Your task to perform on an android device: set an alarm Image 0: 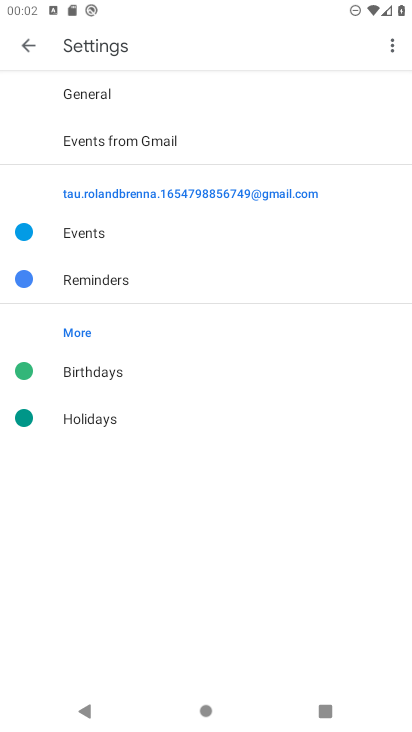
Step 0: press home button
Your task to perform on an android device: set an alarm Image 1: 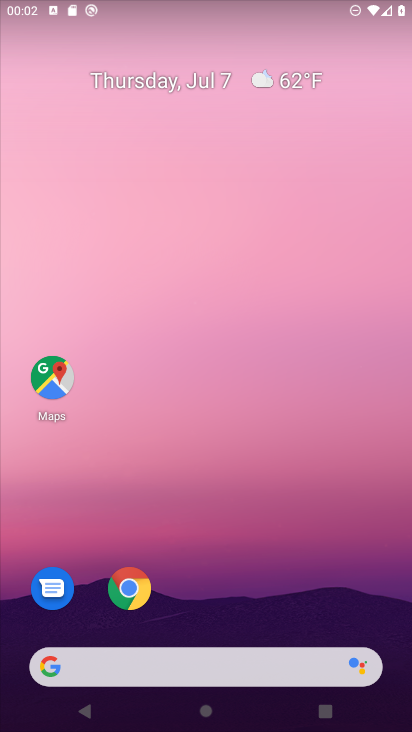
Step 1: drag from (364, 611) to (355, 158)
Your task to perform on an android device: set an alarm Image 2: 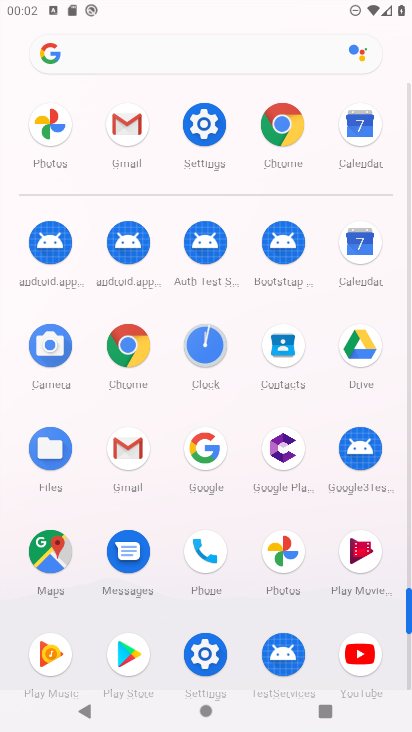
Step 2: click (206, 348)
Your task to perform on an android device: set an alarm Image 3: 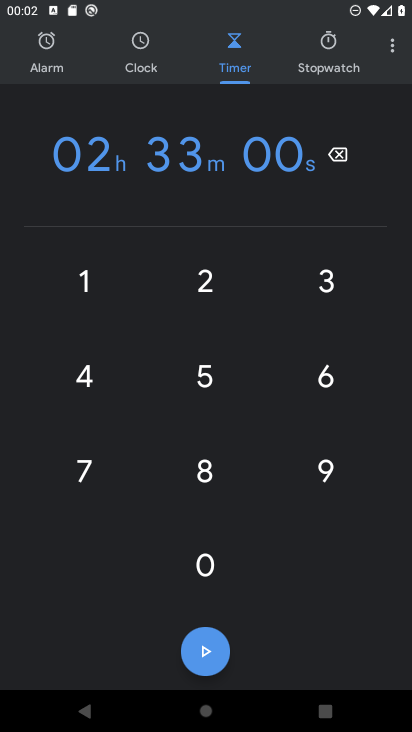
Step 3: click (45, 56)
Your task to perform on an android device: set an alarm Image 4: 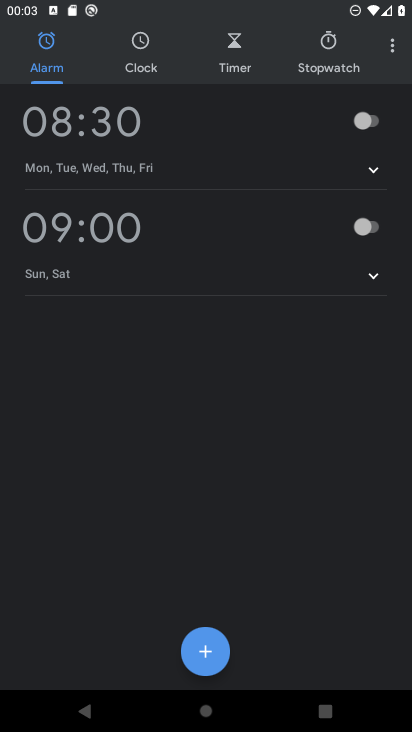
Step 4: click (86, 122)
Your task to perform on an android device: set an alarm Image 5: 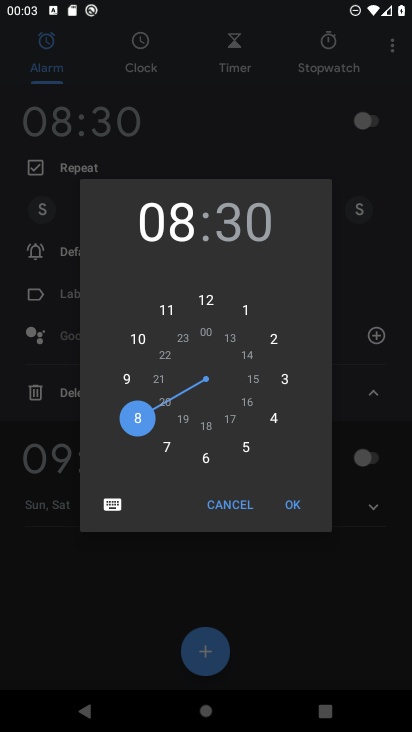
Step 5: click (207, 455)
Your task to perform on an android device: set an alarm Image 6: 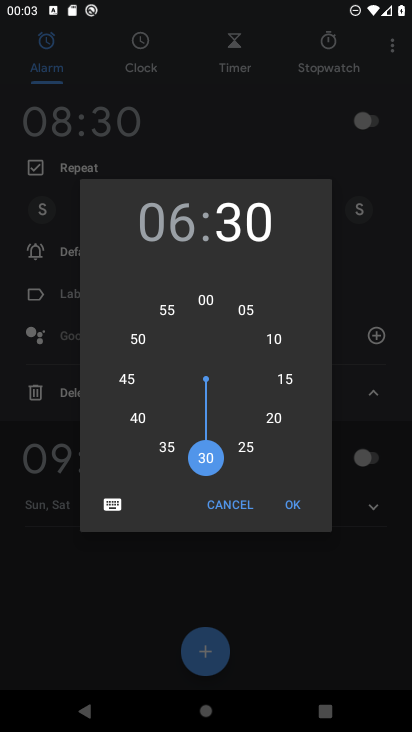
Step 6: click (202, 298)
Your task to perform on an android device: set an alarm Image 7: 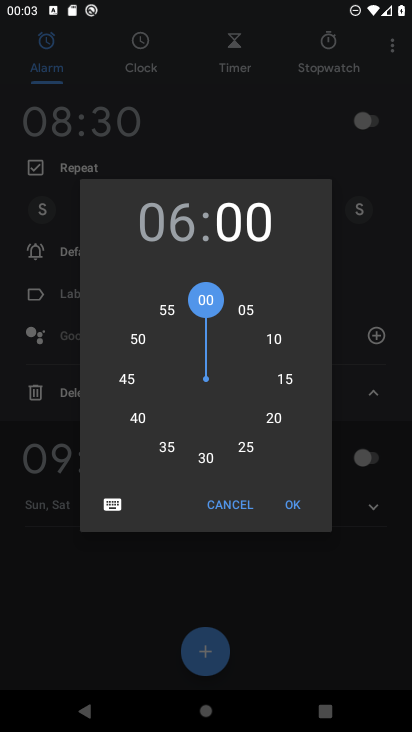
Step 7: click (295, 497)
Your task to perform on an android device: set an alarm Image 8: 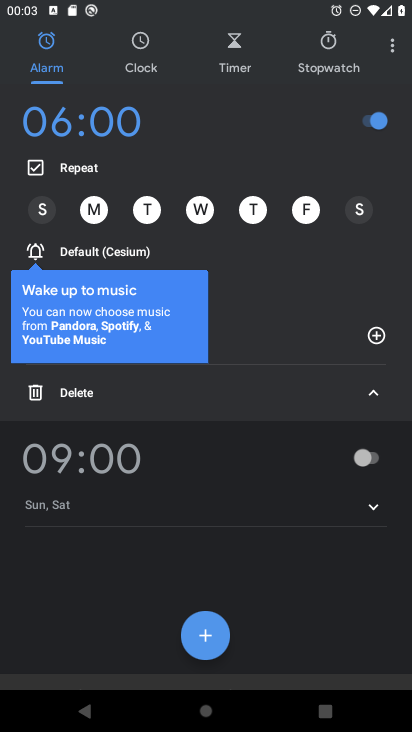
Step 8: click (355, 209)
Your task to perform on an android device: set an alarm Image 9: 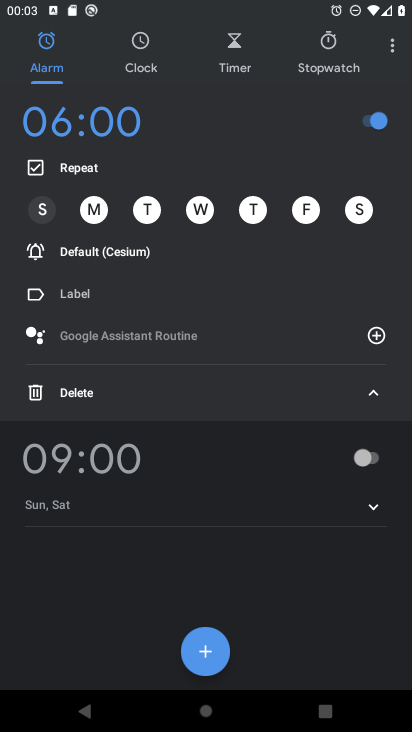
Step 9: click (371, 395)
Your task to perform on an android device: set an alarm Image 10: 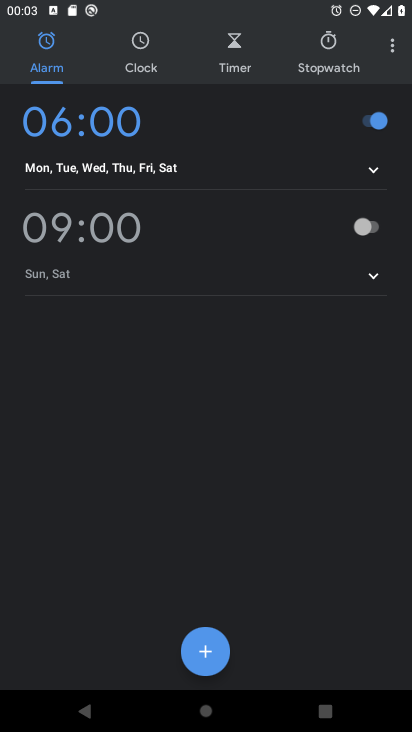
Step 10: task complete